Your task to perform on an android device: Open Google Chrome and click the shortcut for Amazon.com Image 0: 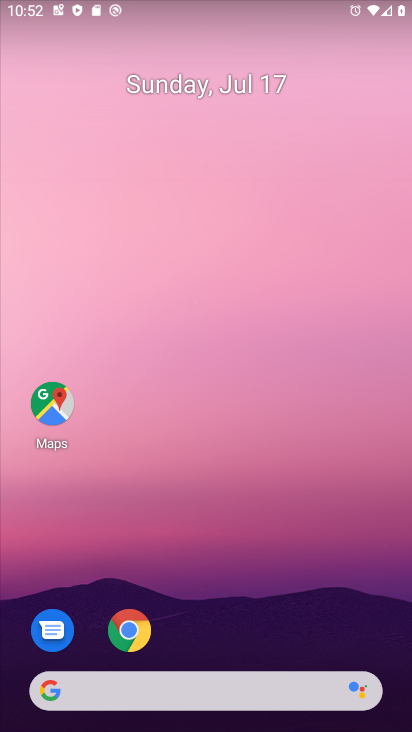
Step 0: drag from (339, 613) to (352, 154)
Your task to perform on an android device: Open Google Chrome and click the shortcut for Amazon.com Image 1: 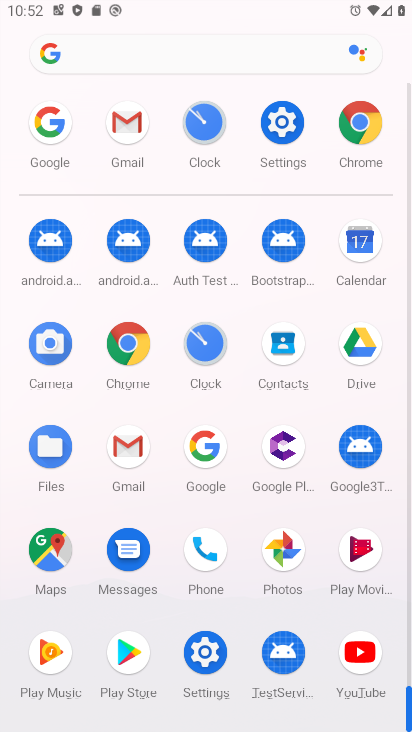
Step 1: click (130, 348)
Your task to perform on an android device: Open Google Chrome and click the shortcut for Amazon.com Image 2: 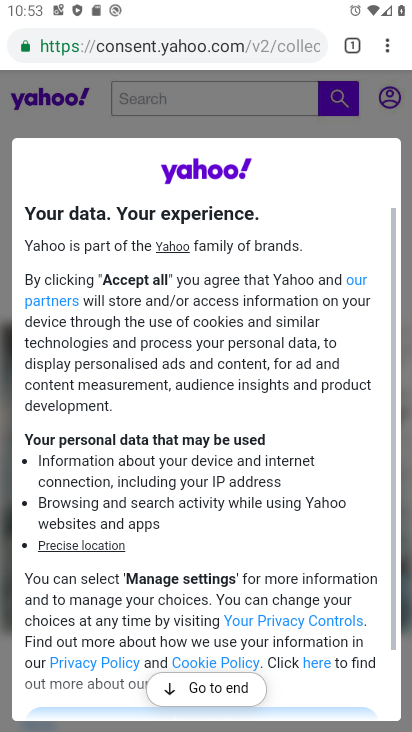
Step 2: press back button
Your task to perform on an android device: Open Google Chrome and click the shortcut for Amazon.com Image 3: 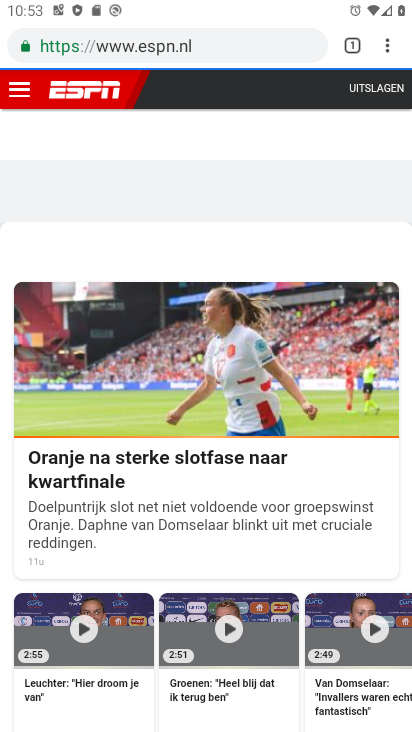
Step 3: press back button
Your task to perform on an android device: Open Google Chrome and click the shortcut for Amazon.com Image 4: 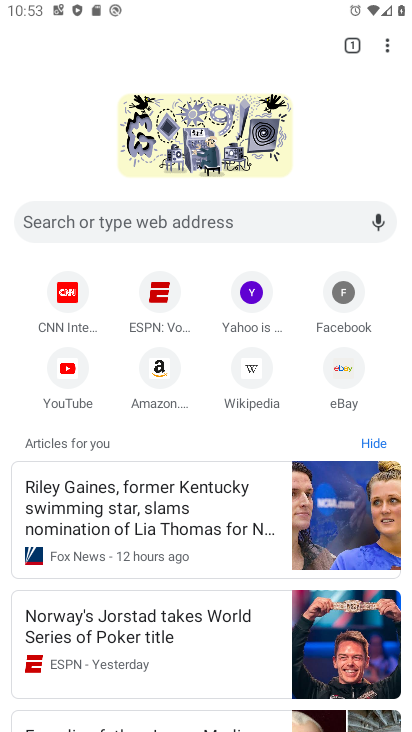
Step 4: click (159, 363)
Your task to perform on an android device: Open Google Chrome and click the shortcut for Amazon.com Image 5: 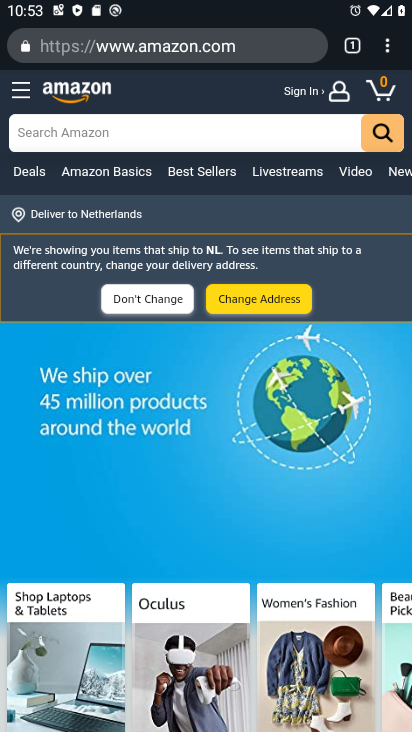
Step 5: task complete